Your task to perform on an android device: What's the weather going to be tomorrow? Image 0: 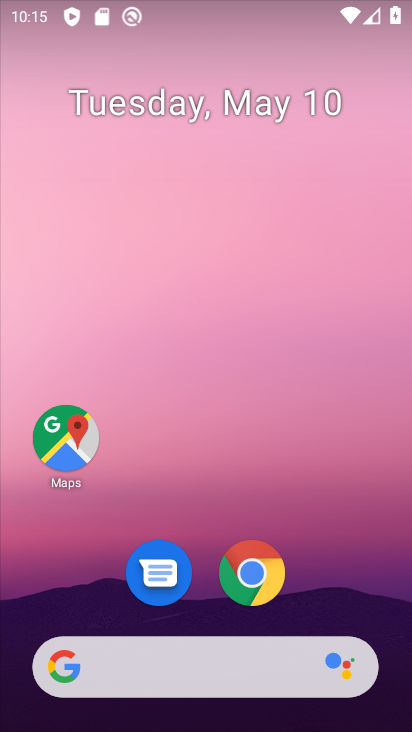
Step 0: drag from (216, 612) to (185, 98)
Your task to perform on an android device: What's the weather going to be tomorrow? Image 1: 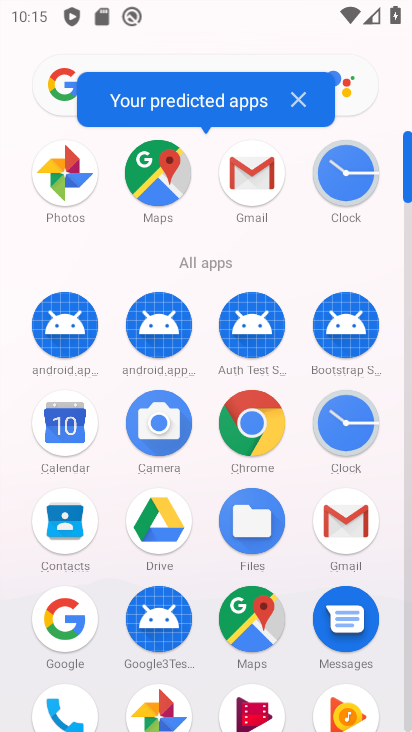
Step 1: click (65, 624)
Your task to perform on an android device: What's the weather going to be tomorrow? Image 2: 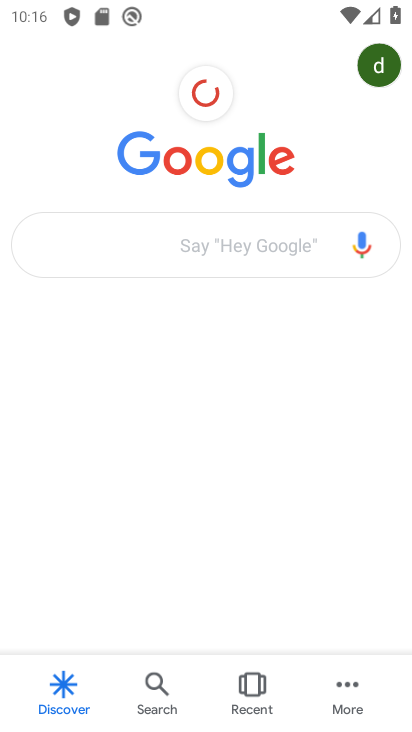
Step 2: click (160, 257)
Your task to perform on an android device: What's the weather going to be tomorrow? Image 3: 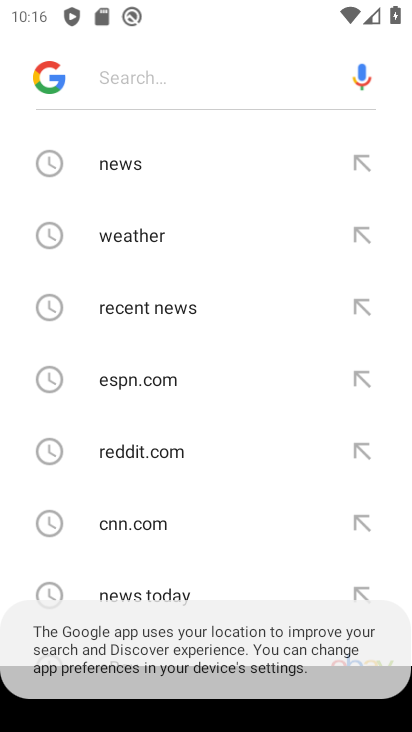
Step 3: drag from (195, 486) to (174, 167)
Your task to perform on an android device: What's the weather going to be tomorrow? Image 4: 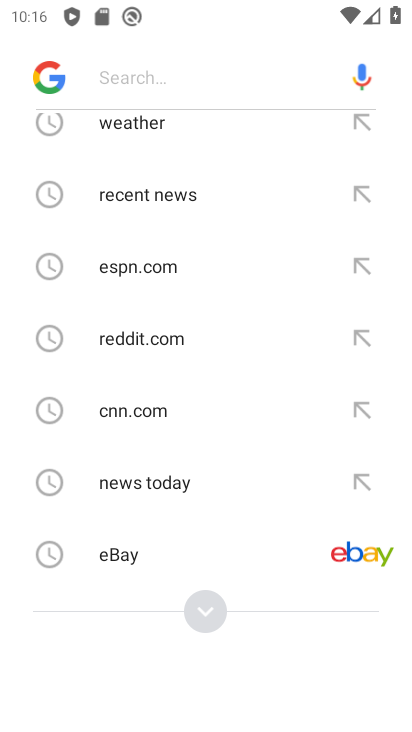
Step 4: type "weather going to be tomorrow"
Your task to perform on an android device: What's the weather going to be tomorrow? Image 5: 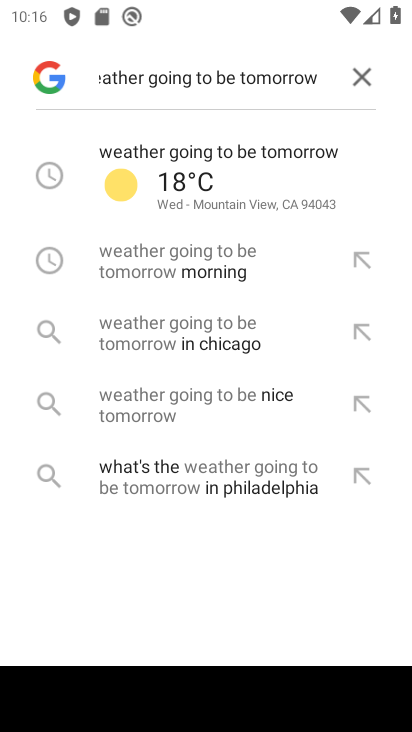
Step 5: click (210, 171)
Your task to perform on an android device: What's the weather going to be tomorrow? Image 6: 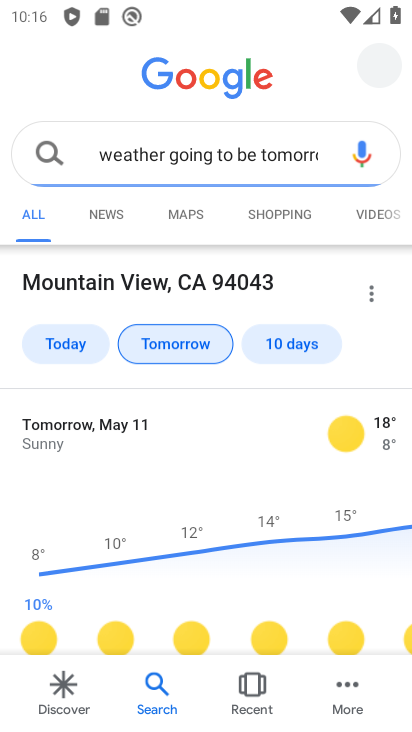
Step 6: task complete